Your task to perform on an android device: Is it going to rain today? Image 0: 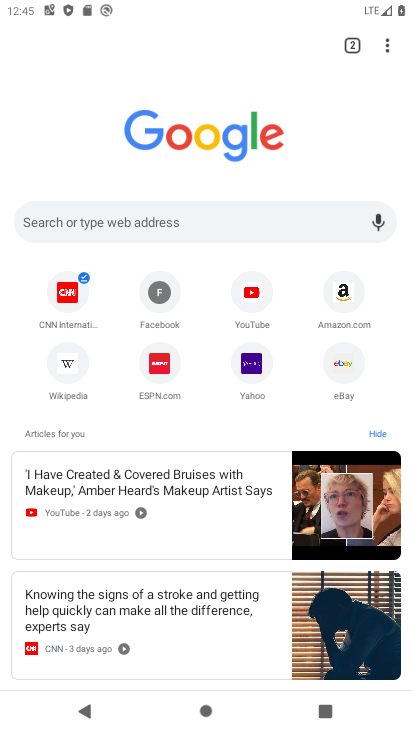
Step 0: press home button
Your task to perform on an android device: Is it going to rain today? Image 1: 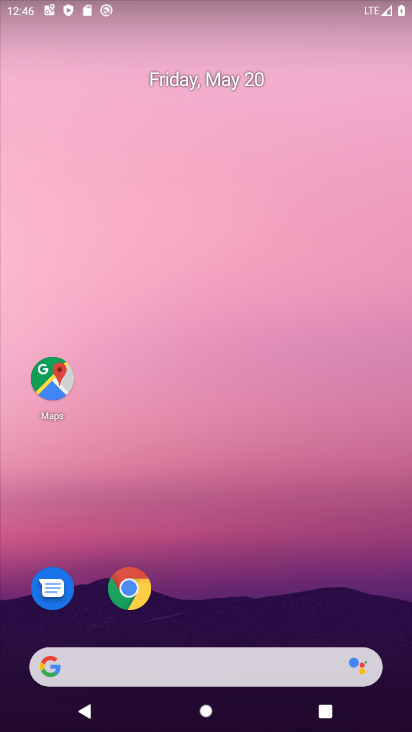
Step 1: drag from (14, 195) to (315, 236)
Your task to perform on an android device: Is it going to rain today? Image 2: 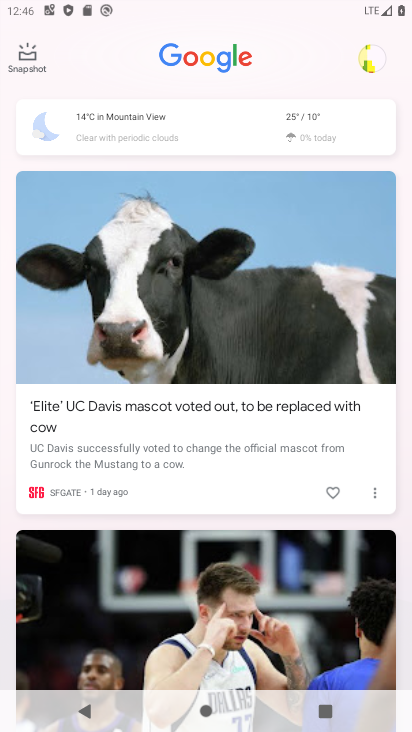
Step 2: click (318, 116)
Your task to perform on an android device: Is it going to rain today? Image 3: 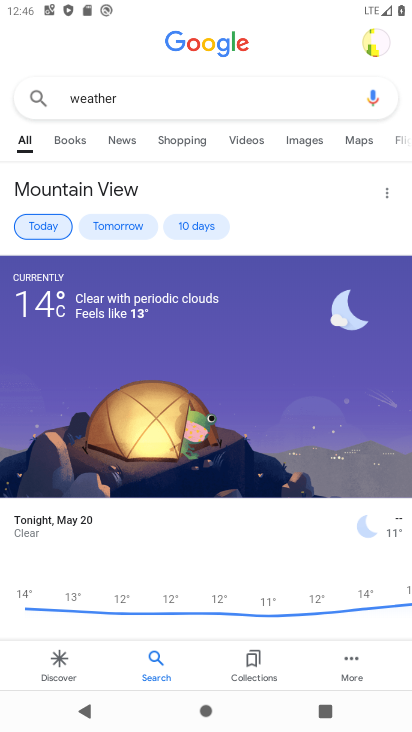
Step 3: task complete